Your task to perform on an android device: refresh tabs in the chrome app Image 0: 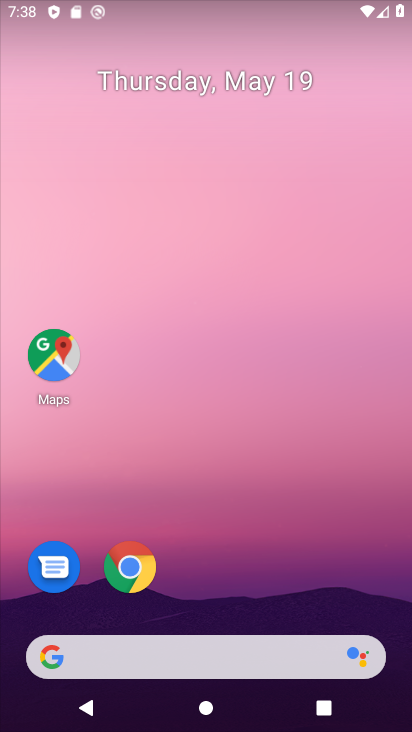
Step 0: click (136, 571)
Your task to perform on an android device: refresh tabs in the chrome app Image 1: 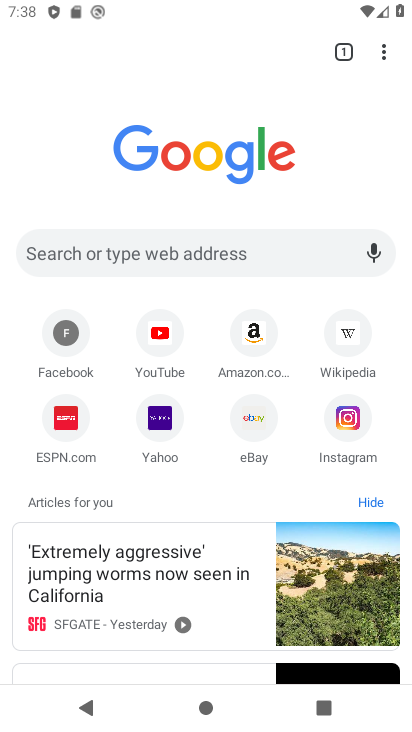
Step 1: click (377, 54)
Your task to perform on an android device: refresh tabs in the chrome app Image 2: 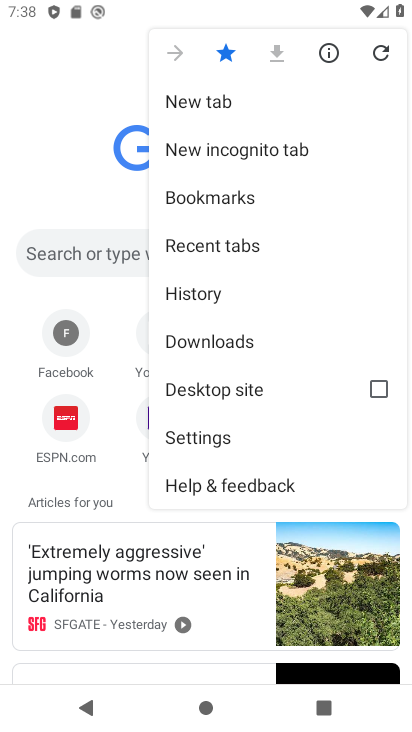
Step 2: click (377, 54)
Your task to perform on an android device: refresh tabs in the chrome app Image 3: 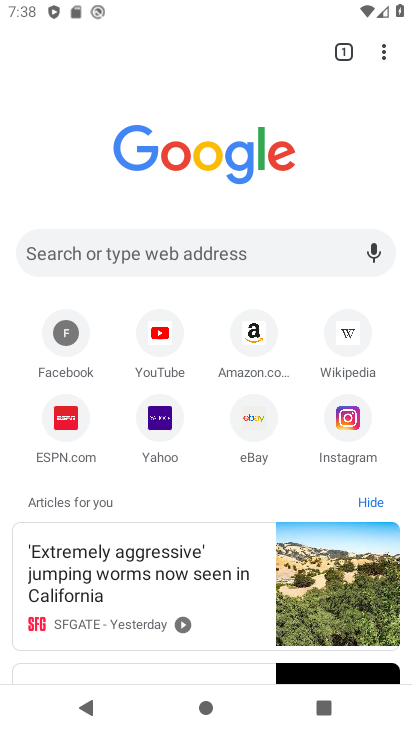
Step 3: click (378, 54)
Your task to perform on an android device: refresh tabs in the chrome app Image 4: 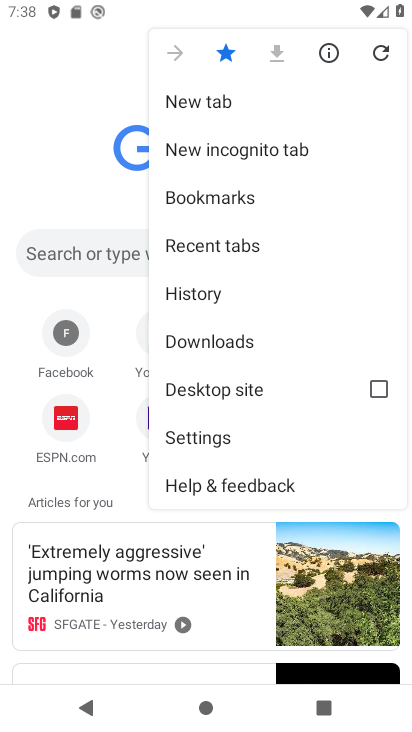
Step 4: task complete